Your task to perform on an android device: find photos in the google photos app Image 0: 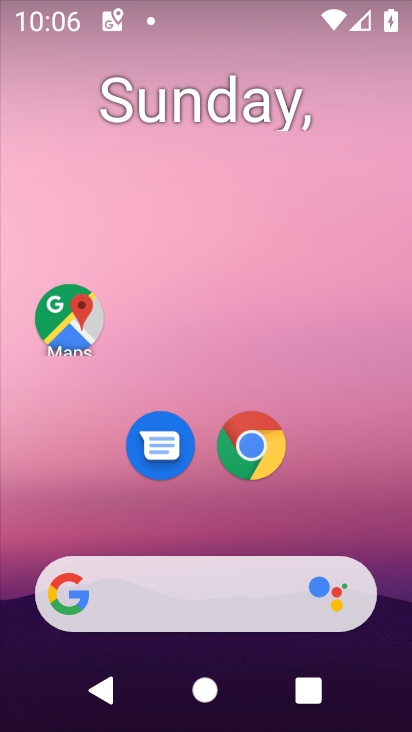
Step 0: press home button
Your task to perform on an android device: find photos in the google photos app Image 1: 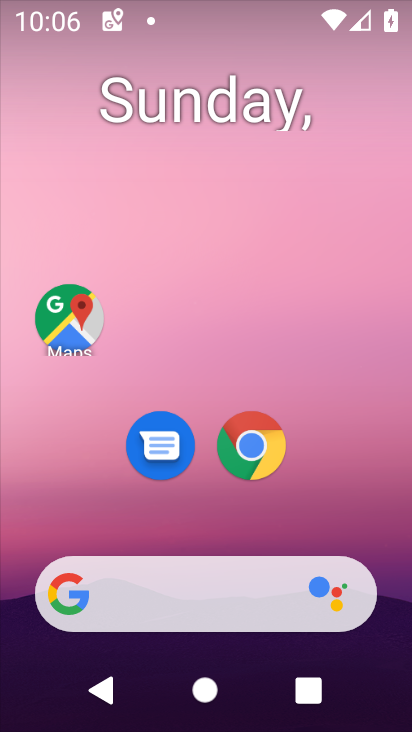
Step 1: drag from (380, 547) to (254, 73)
Your task to perform on an android device: find photos in the google photos app Image 2: 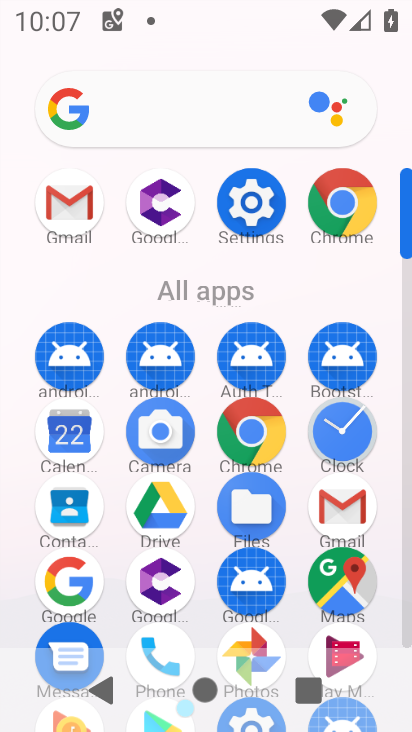
Step 2: click (401, 617)
Your task to perform on an android device: find photos in the google photos app Image 3: 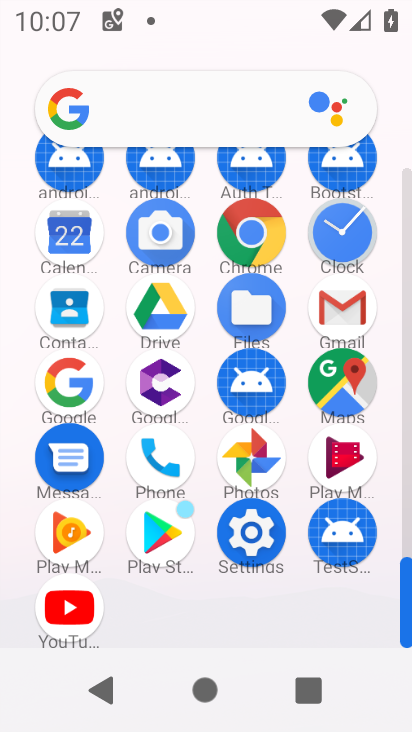
Step 3: click (249, 462)
Your task to perform on an android device: find photos in the google photos app Image 4: 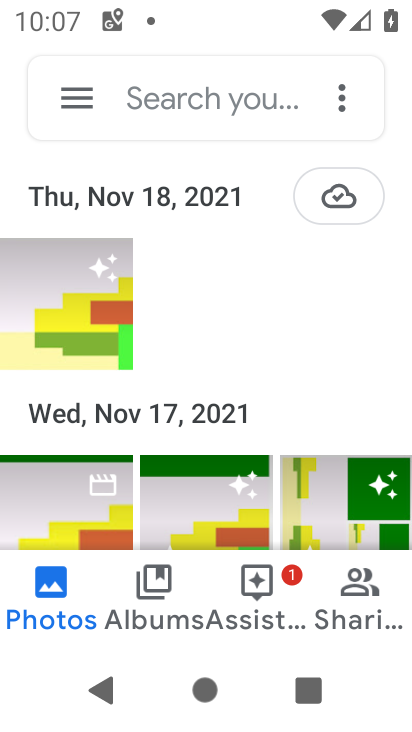
Step 4: task complete